Your task to perform on an android device: open the mobile data screen to see how much data has been used Image 0: 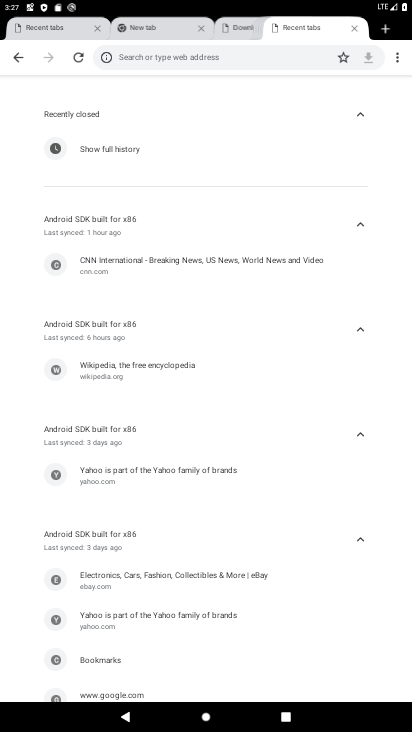
Step 0: press home button
Your task to perform on an android device: open the mobile data screen to see how much data has been used Image 1: 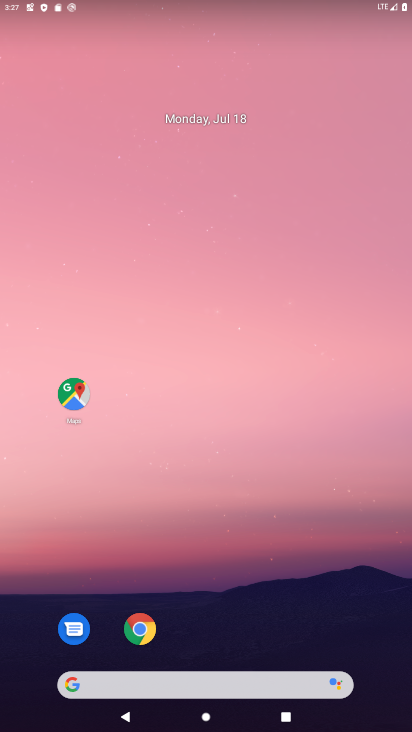
Step 1: drag from (177, 586) to (222, 244)
Your task to perform on an android device: open the mobile data screen to see how much data has been used Image 2: 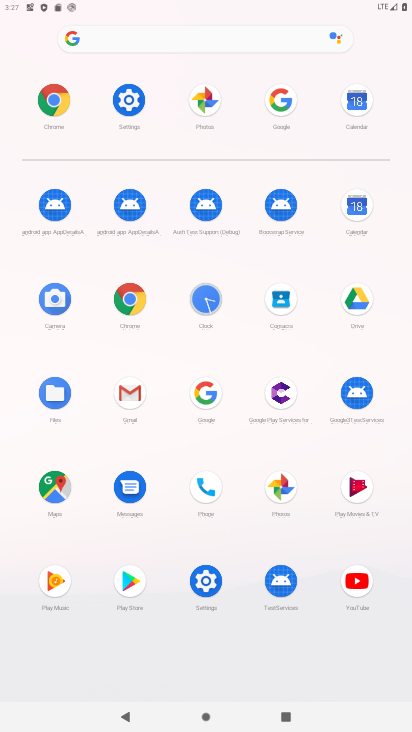
Step 2: click (133, 100)
Your task to perform on an android device: open the mobile data screen to see how much data has been used Image 3: 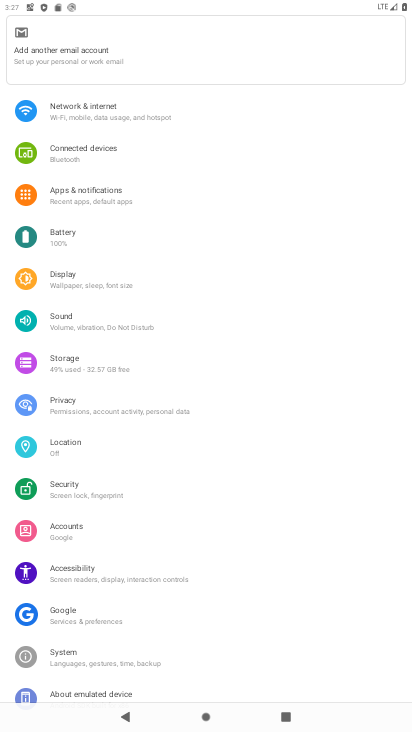
Step 3: click (129, 114)
Your task to perform on an android device: open the mobile data screen to see how much data has been used Image 4: 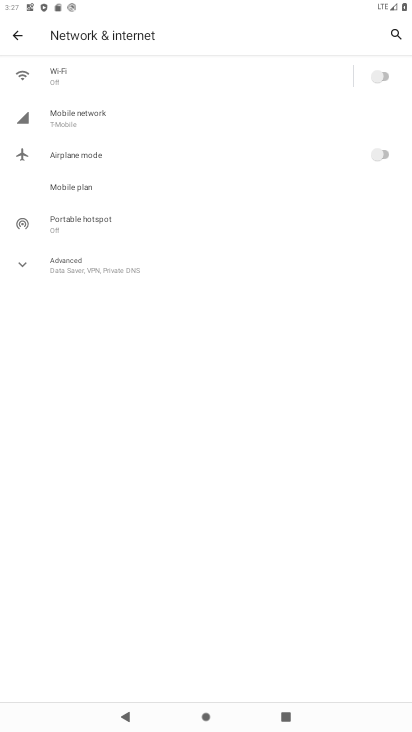
Step 4: click (129, 116)
Your task to perform on an android device: open the mobile data screen to see how much data has been used Image 5: 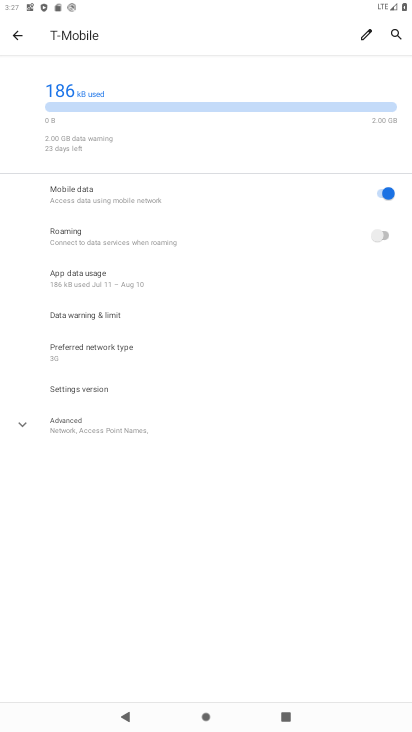
Step 5: click (119, 277)
Your task to perform on an android device: open the mobile data screen to see how much data has been used Image 6: 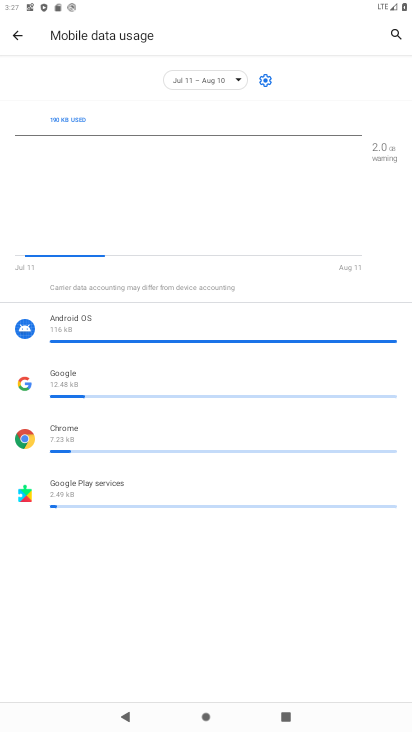
Step 6: task complete